Your task to perform on an android device: turn on priority inbox in the gmail app Image 0: 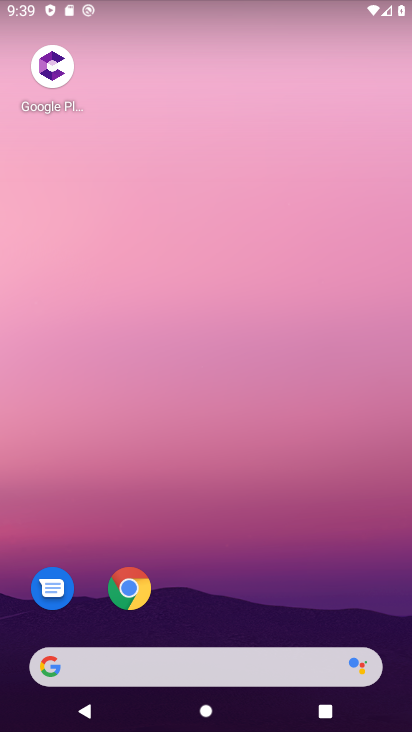
Step 0: drag from (170, 590) to (248, 54)
Your task to perform on an android device: turn on priority inbox in the gmail app Image 1: 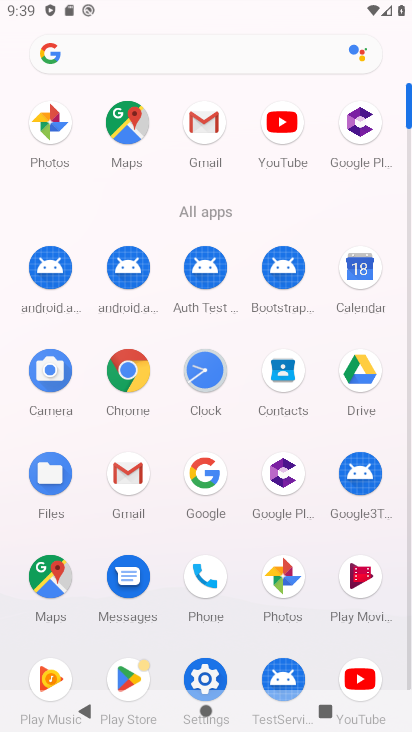
Step 1: click (196, 131)
Your task to perform on an android device: turn on priority inbox in the gmail app Image 2: 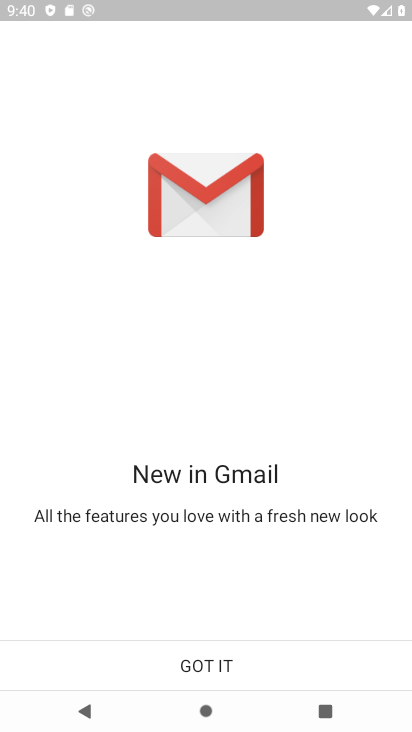
Step 2: click (244, 660)
Your task to perform on an android device: turn on priority inbox in the gmail app Image 3: 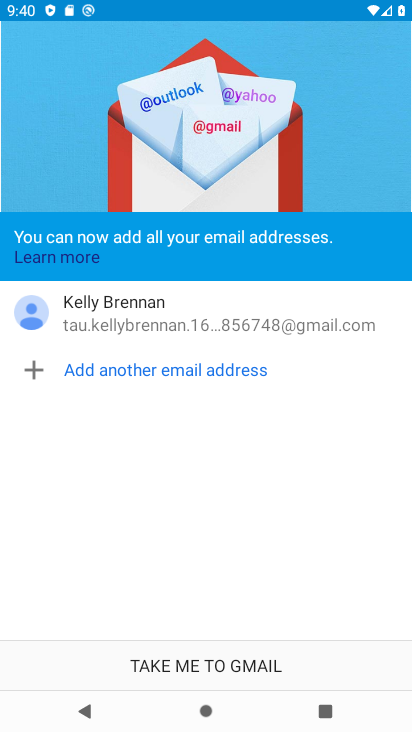
Step 3: click (244, 660)
Your task to perform on an android device: turn on priority inbox in the gmail app Image 4: 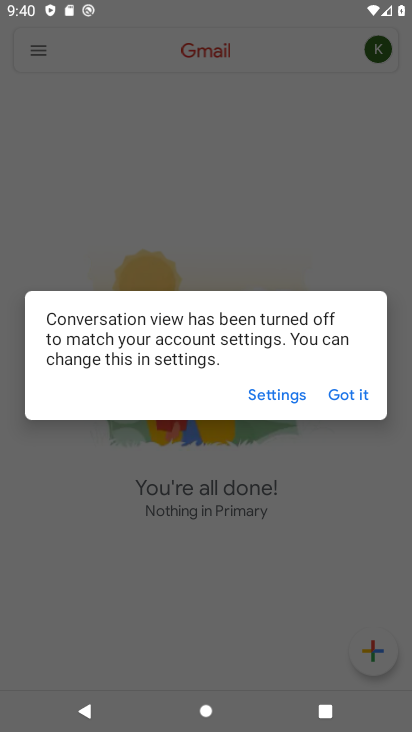
Step 4: click (332, 398)
Your task to perform on an android device: turn on priority inbox in the gmail app Image 5: 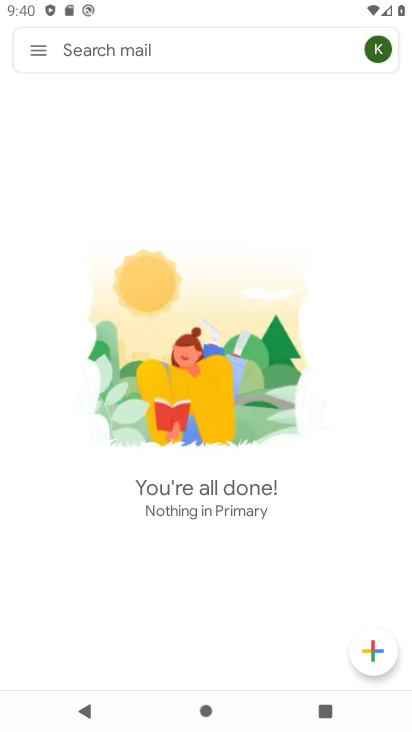
Step 5: click (46, 60)
Your task to perform on an android device: turn on priority inbox in the gmail app Image 6: 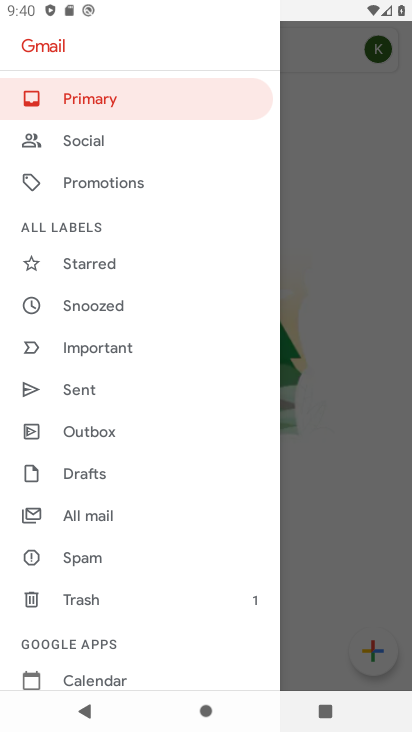
Step 6: drag from (111, 665) to (115, 174)
Your task to perform on an android device: turn on priority inbox in the gmail app Image 7: 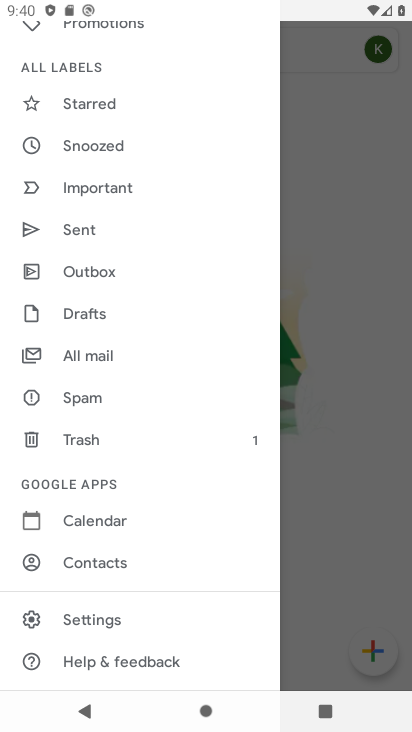
Step 7: click (107, 631)
Your task to perform on an android device: turn on priority inbox in the gmail app Image 8: 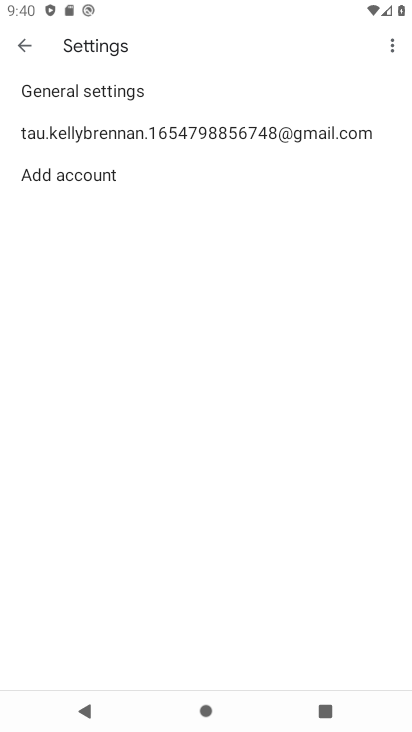
Step 8: click (202, 143)
Your task to perform on an android device: turn on priority inbox in the gmail app Image 9: 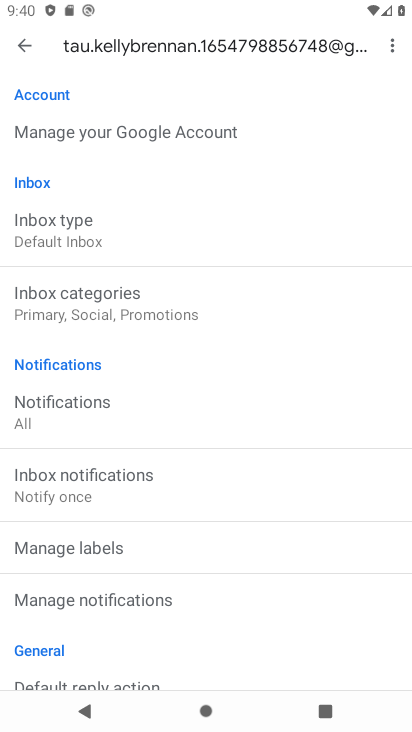
Step 9: click (104, 248)
Your task to perform on an android device: turn on priority inbox in the gmail app Image 10: 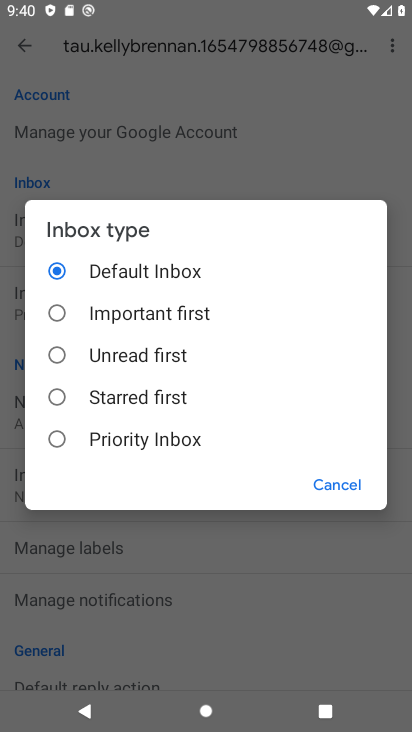
Step 10: click (98, 436)
Your task to perform on an android device: turn on priority inbox in the gmail app Image 11: 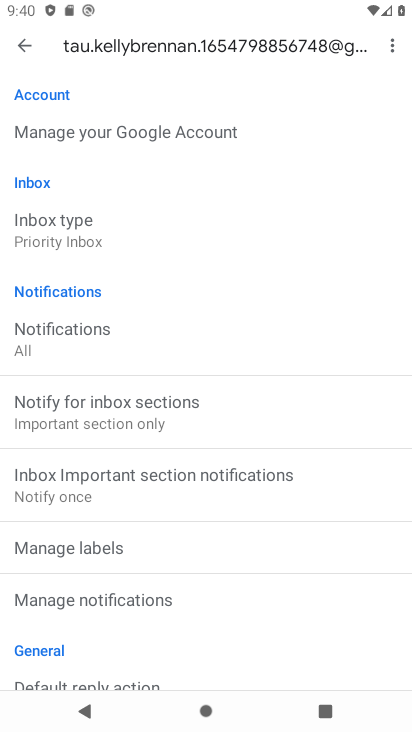
Step 11: task complete